Your task to perform on an android device: open chrome privacy settings Image 0: 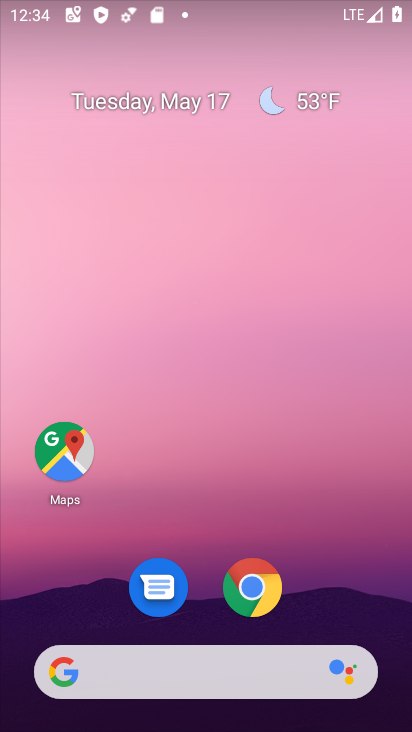
Step 0: click (239, 602)
Your task to perform on an android device: open chrome privacy settings Image 1: 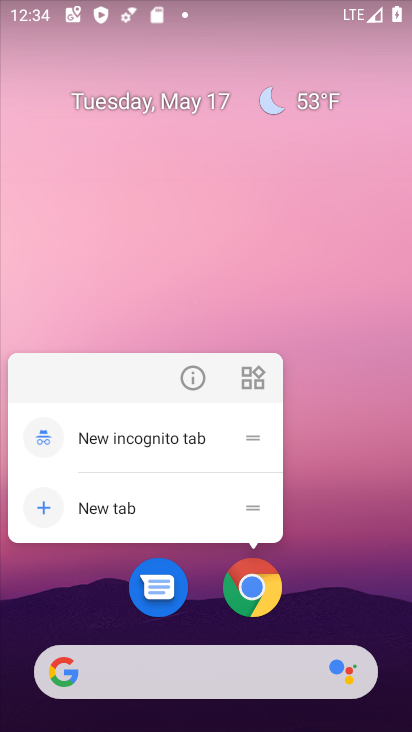
Step 1: click (259, 583)
Your task to perform on an android device: open chrome privacy settings Image 2: 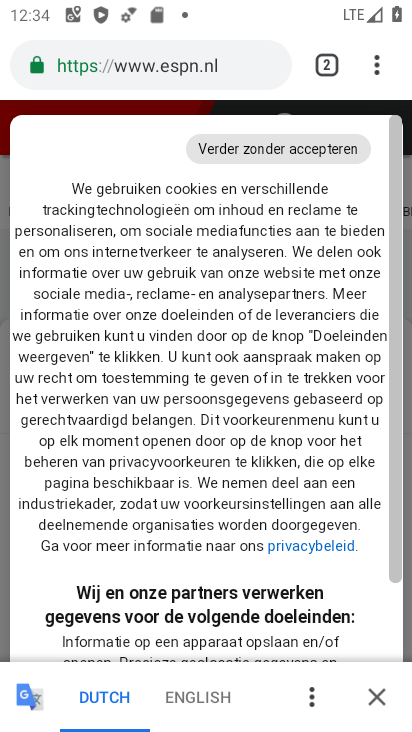
Step 2: click (375, 71)
Your task to perform on an android device: open chrome privacy settings Image 3: 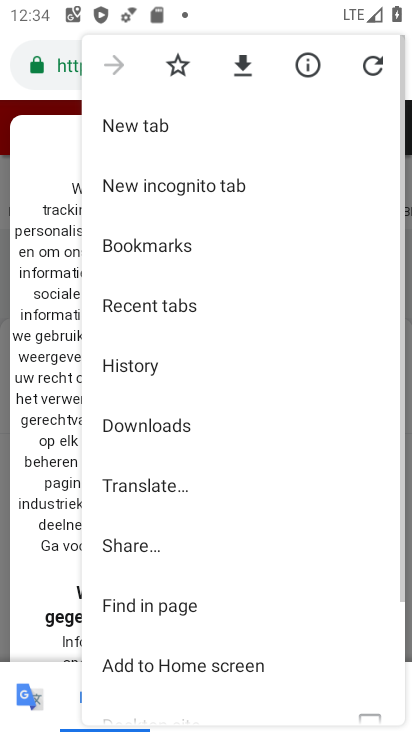
Step 3: drag from (234, 532) to (204, 59)
Your task to perform on an android device: open chrome privacy settings Image 4: 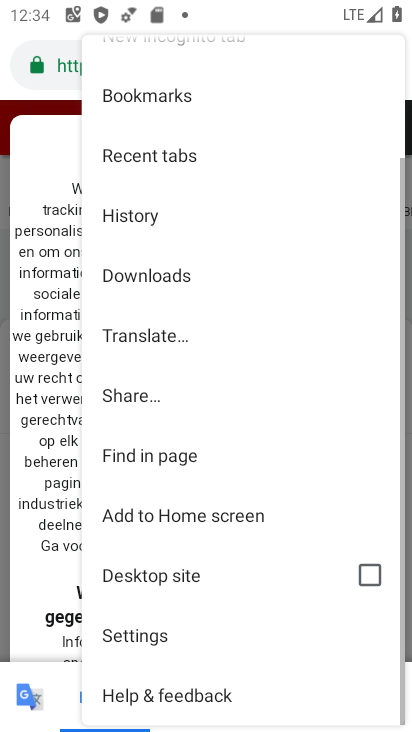
Step 4: click (157, 642)
Your task to perform on an android device: open chrome privacy settings Image 5: 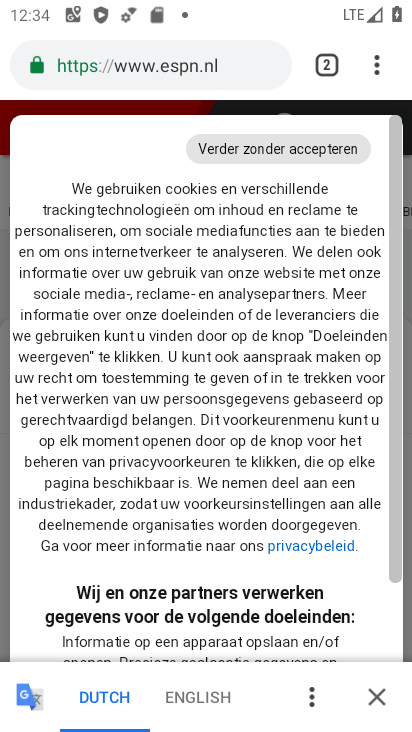
Step 5: drag from (157, 642) to (152, 78)
Your task to perform on an android device: open chrome privacy settings Image 6: 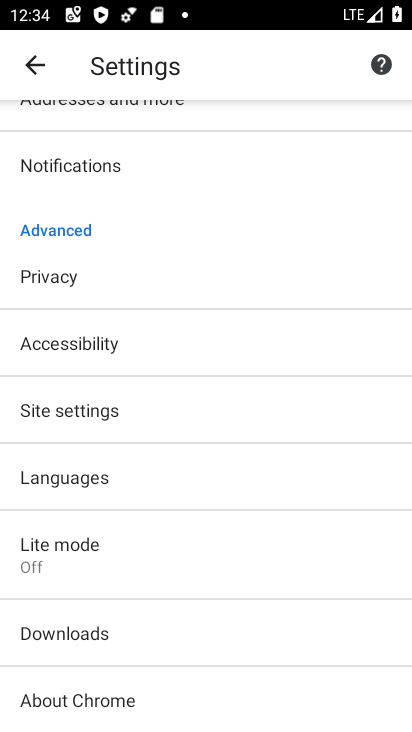
Step 6: click (108, 289)
Your task to perform on an android device: open chrome privacy settings Image 7: 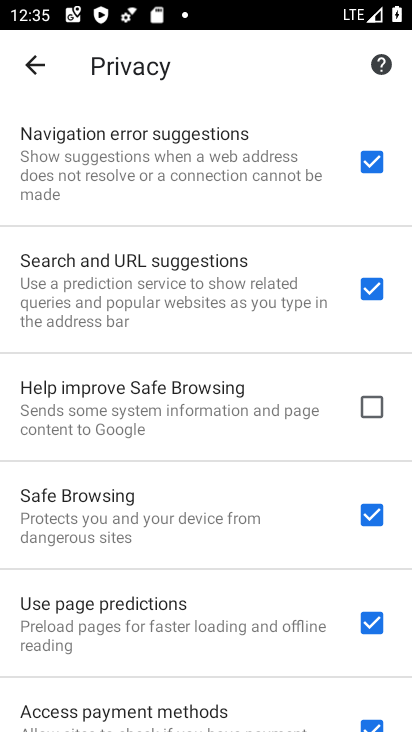
Step 7: task complete